Your task to perform on an android device: change text size in settings app Image 0: 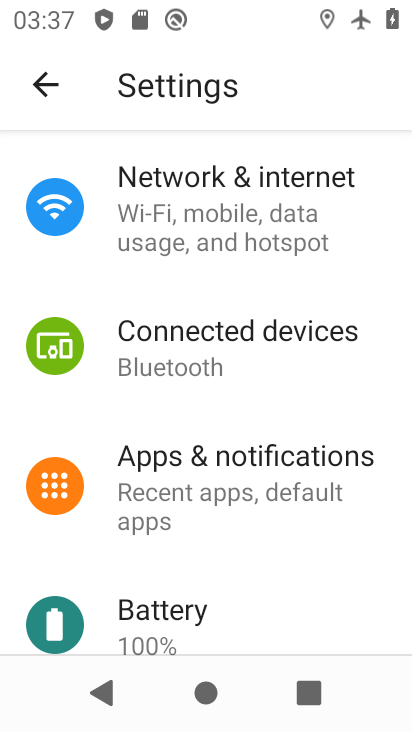
Step 0: drag from (259, 582) to (259, 327)
Your task to perform on an android device: change text size in settings app Image 1: 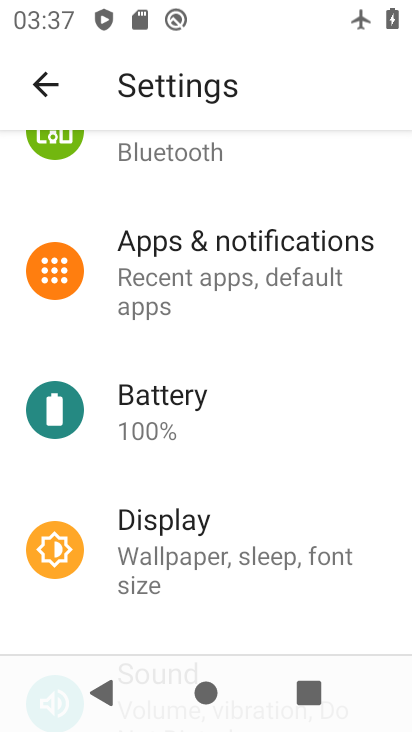
Step 1: drag from (234, 549) to (248, 397)
Your task to perform on an android device: change text size in settings app Image 2: 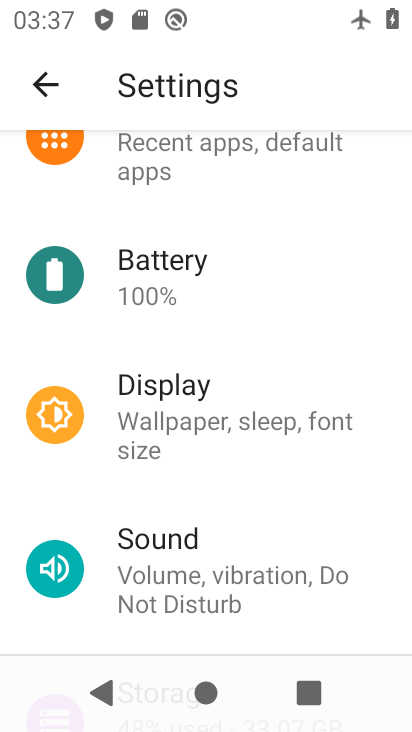
Step 2: click (225, 415)
Your task to perform on an android device: change text size in settings app Image 3: 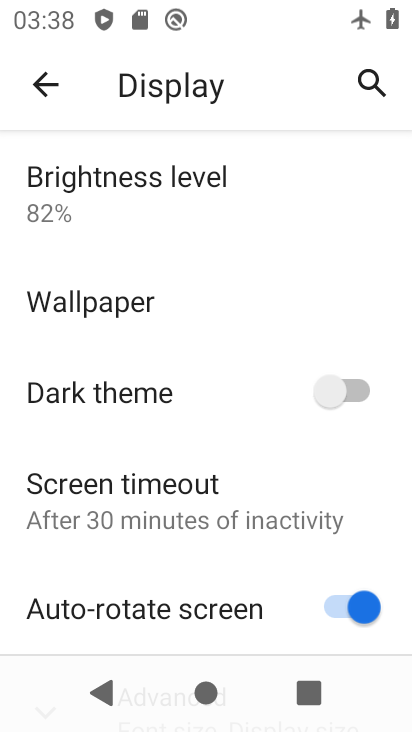
Step 3: drag from (82, 564) to (182, 231)
Your task to perform on an android device: change text size in settings app Image 4: 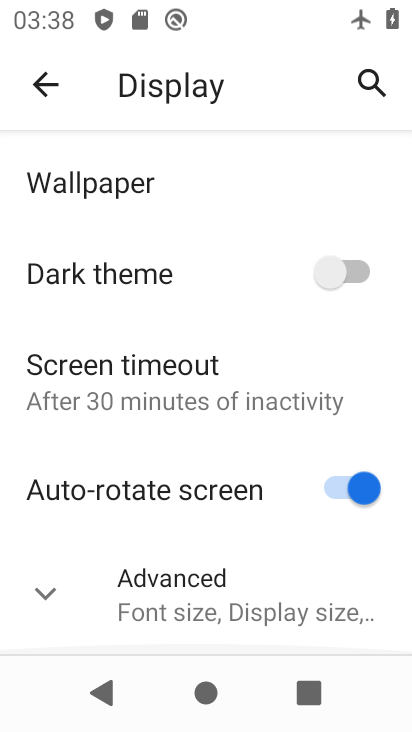
Step 4: click (189, 582)
Your task to perform on an android device: change text size in settings app Image 5: 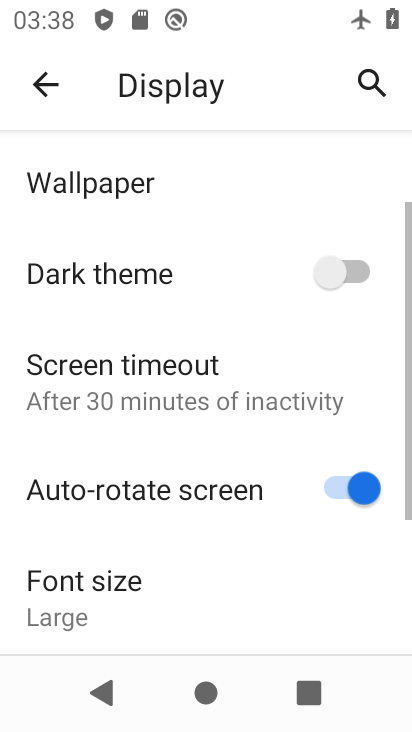
Step 5: drag from (201, 561) to (216, 198)
Your task to perform on an android device: change text size in settings app Image 6: 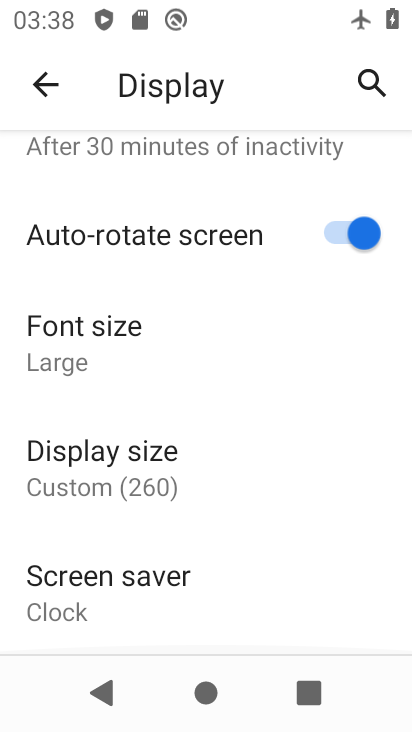
Step 6: click (180, 343)
Your task to perform on an android device: change text size in settings app Image 7: 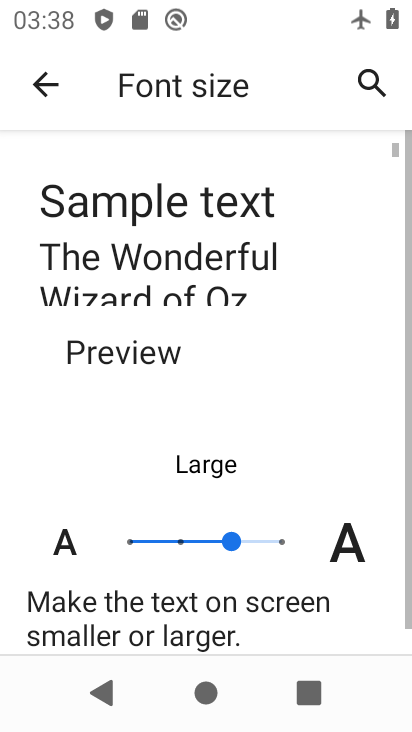
Step 7: click (179, 540)
Your task to perform on an android device: change text size in settings app Image 8: 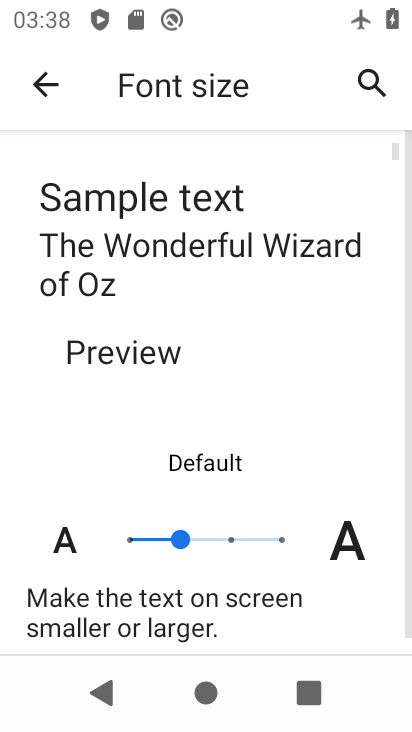
Step 8: task complete